Your task to perform on an android device: turn off translation in the chrome app Image 0: 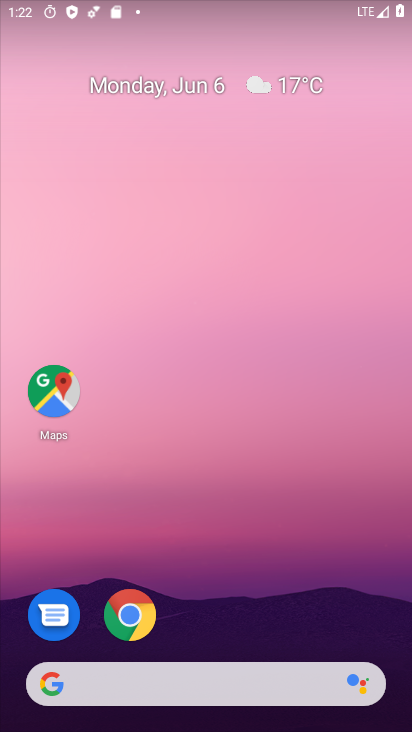
Step 0: drag from (192, 635) to (253, 162)
Your task to perform on an android device: turn off translation in the chrome app Image 1: 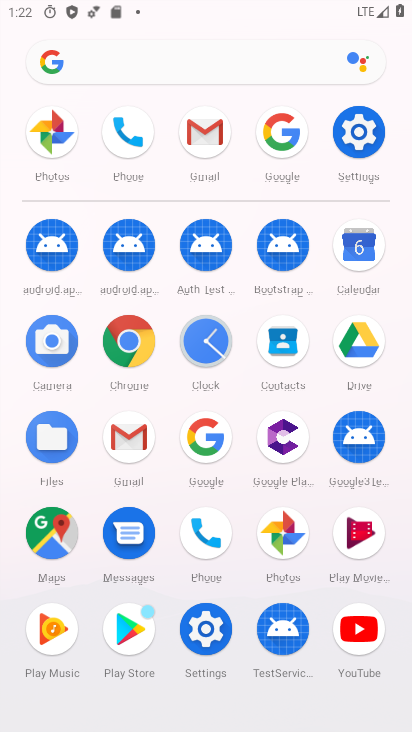
Step 1: click (129, 344)
Your task to perform on an android device: turn off translation in the chrome app Image 2: 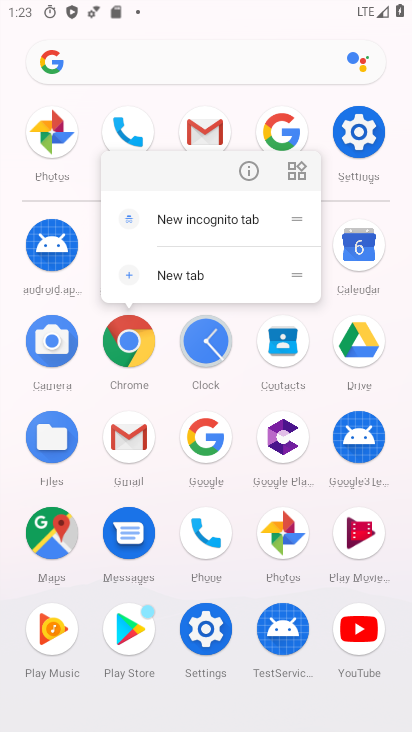
Step 2: click (249, 158)
Your task to perform on an android device: turn off translation in the chrome app Image 3: 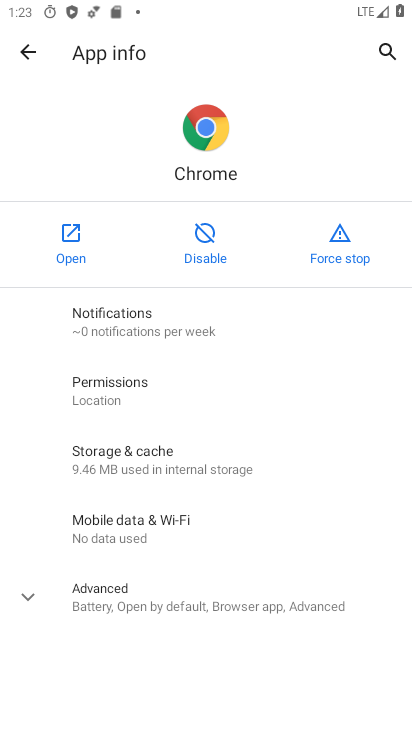
Step 3: click (72, 237)
Your task to perform on an android device: turn off translation in the chrome app Image 4: 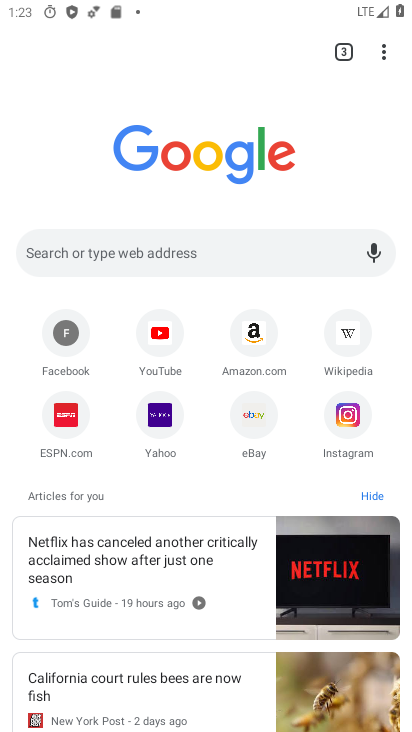
Step 4: drag from (222, 585) to (284, 164)
Your task to perform on an android device: turn off translation in the chrome app Image 5: 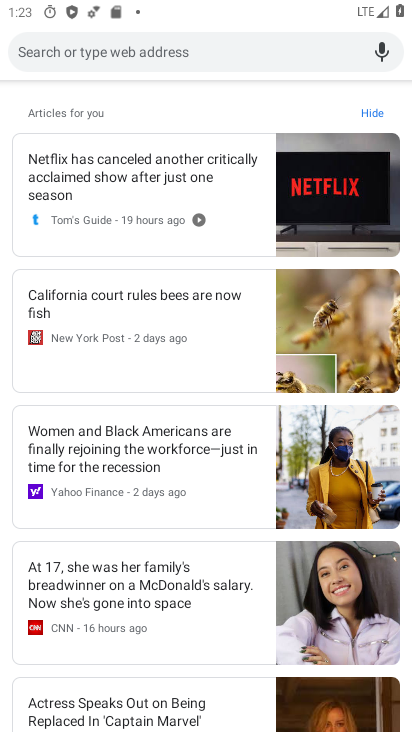
Step 5: drag from (226, 99) to (266, 728)
Your task to perform on an android device: turn off translation in the chrome app Image 6: 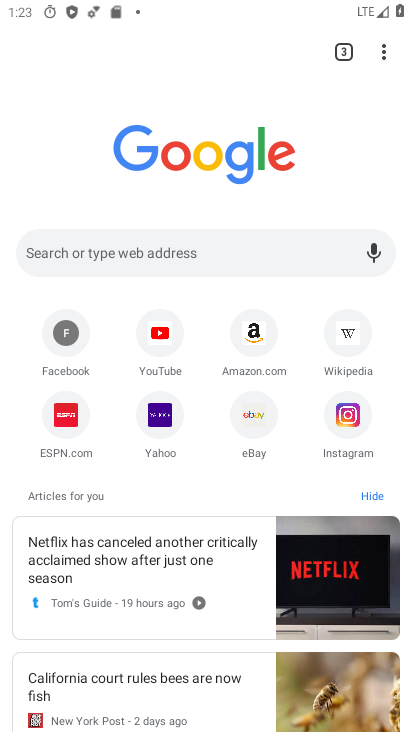
Step 6: drag from (189, 636) to (188, 299)
Your task to perform on an android device: turn off translation in the chrome app Image 7: 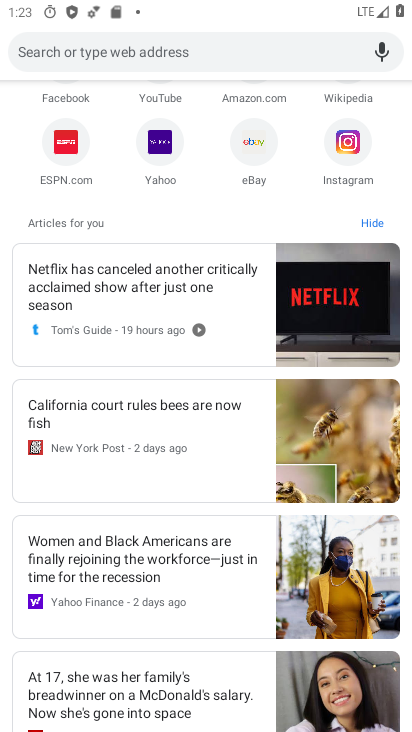
Step 7: drag from (204, 178) to (342, 713)
Your task to perform on an android device: turn off translation in the chrome app Image 8: 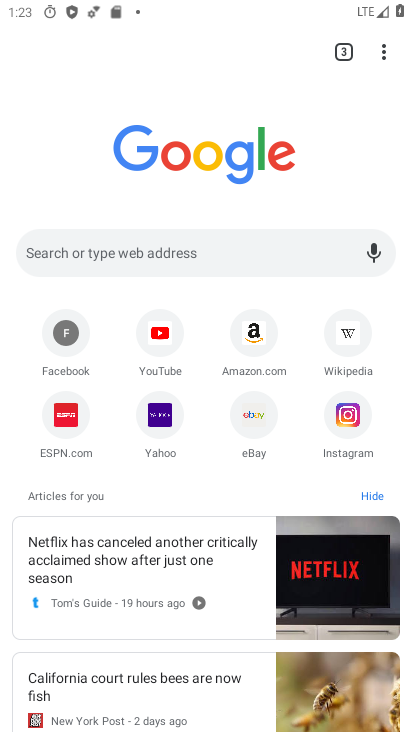
Step 8: click (380, 57)
Your task to perform on an android device: turn off translation in the chrome app Image 9: 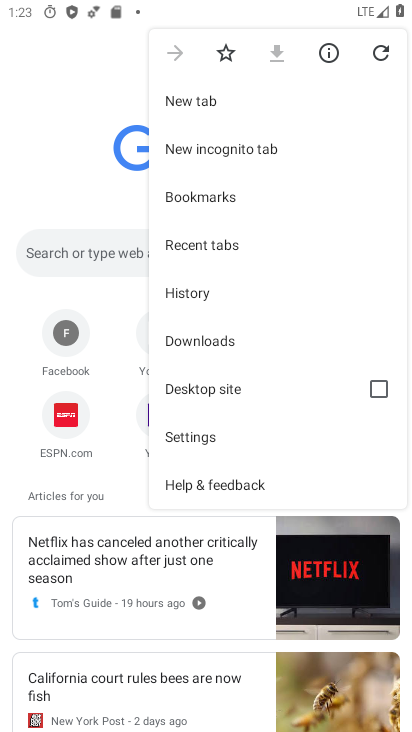
Step 9: drag from (236, 478) to (347, 61)
Your task to perform on an android device: turn off translation in the chrome app Image 10: 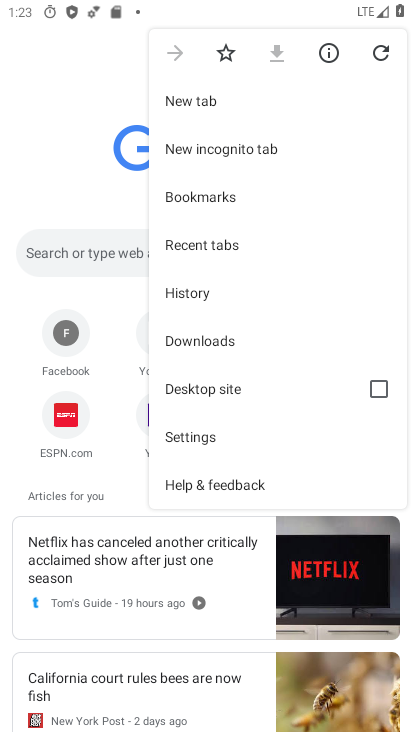
Step 10: click (217, 426)
Your task to perform on an android device: turn off translation in the chrome app Image 11: 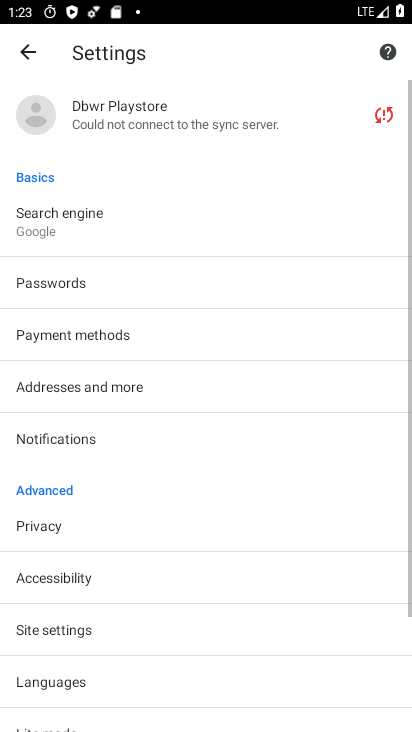
Step 11: drag from (243, 560) to (261, 392)
Your task to perform on an android device: turn off translation in the chrome app Image 12: 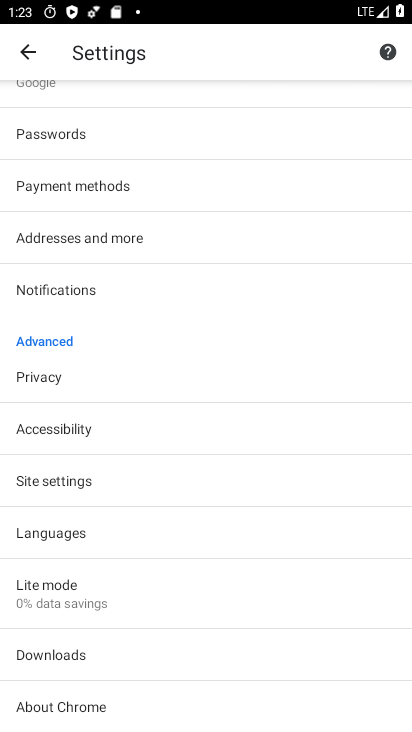
Step 12: drag from (280, 236) to (268, 643)
Your task to perform on an android device: turn off translation in the chrome app Image 13: 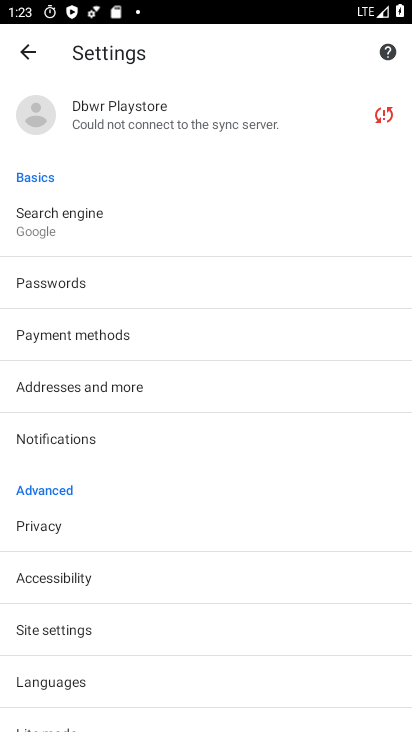
Step 13: drag from (149, 657) to (245, 261)
Your task to perform on an android device: turn off translation in the chrome app Image 14: 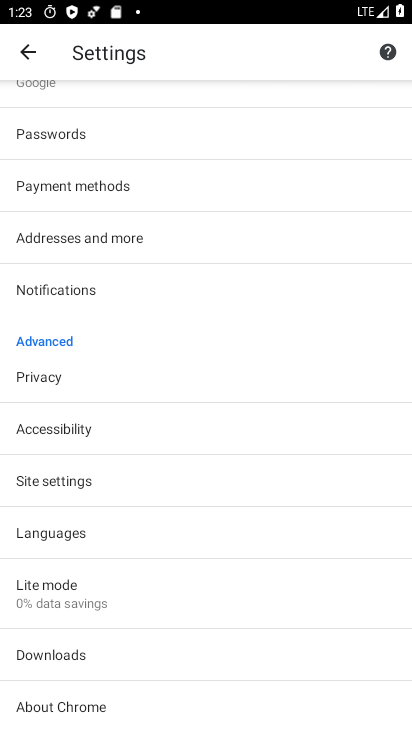
Step 14: drag from (147, 647) to (234, 322)
Your task to perform on an android device: turn off translation in the chrome app Image 15: 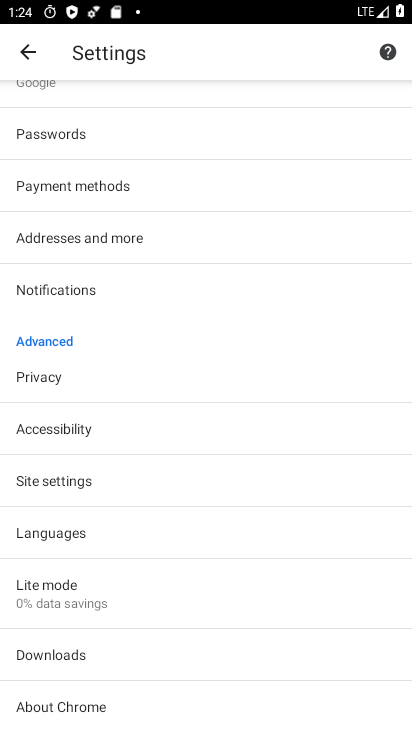
Step 15: click (108, 542)
Your task to perform on an android device: turn off translation in the chrome app Image 16: 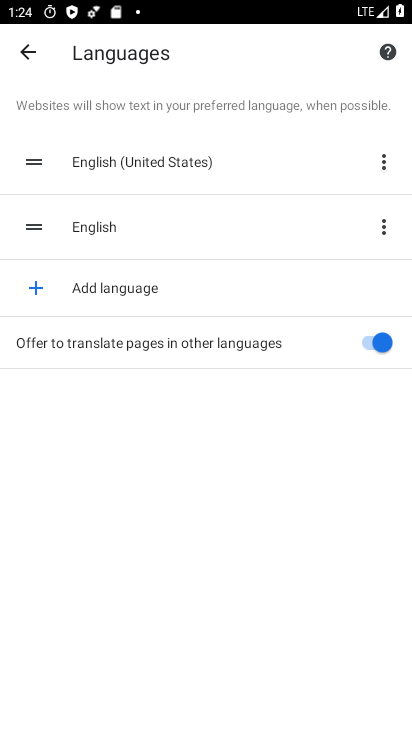
Step 16: click (365, 349)
Your task to perform on an android device: turn off translation in the chrome app Image 17: 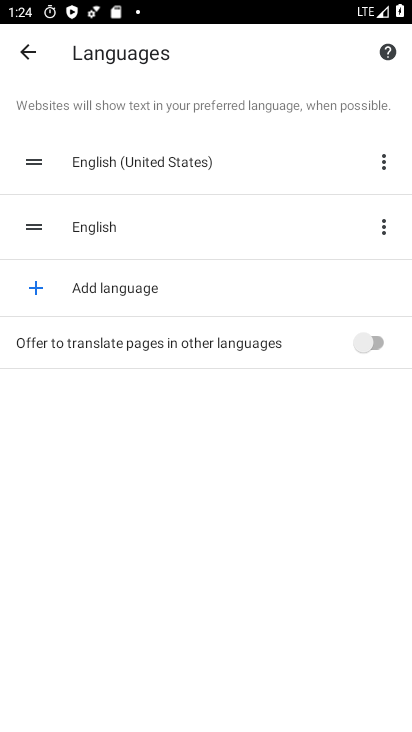
Step 17: task complete